Your task to perform on an android device: Open the map Image 0: 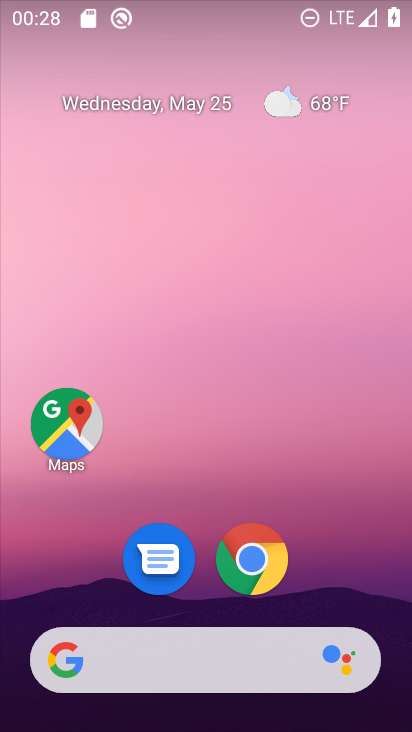
Step 0: click (70, 424)
Your task to perform on an android device: Open the map Image 1: 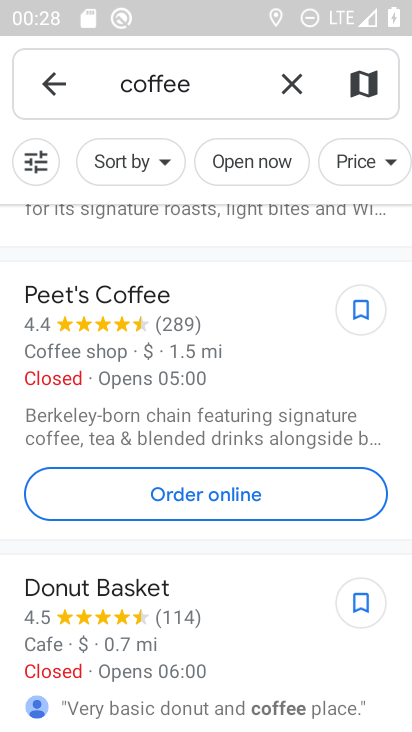
Step 1: click (289, 80)
Your task to perform on an android device: Open the map Image 2: 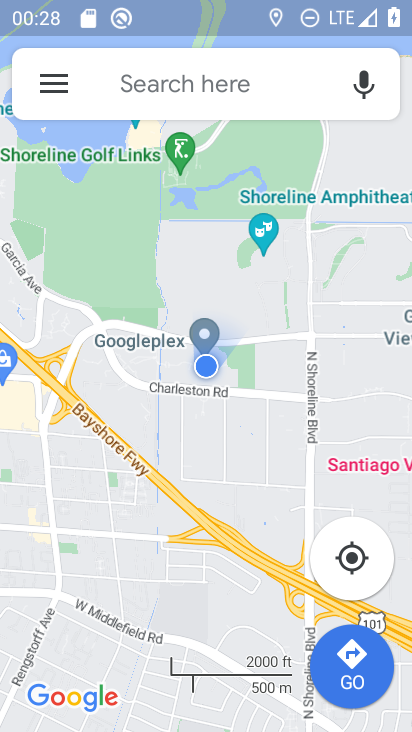
Step 2: task complete